Your task to perform on an android device: Go to Google maps Image 0: 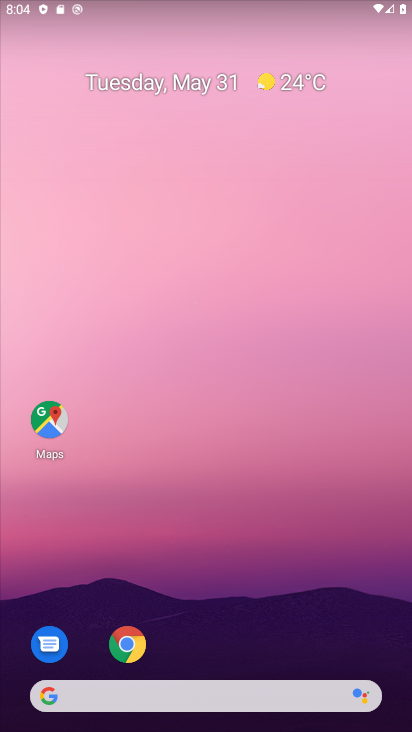
Step 0: drag from (354, 609) to (298, 184)
Your task to perform on an android device: Go to Google maps Image 1: 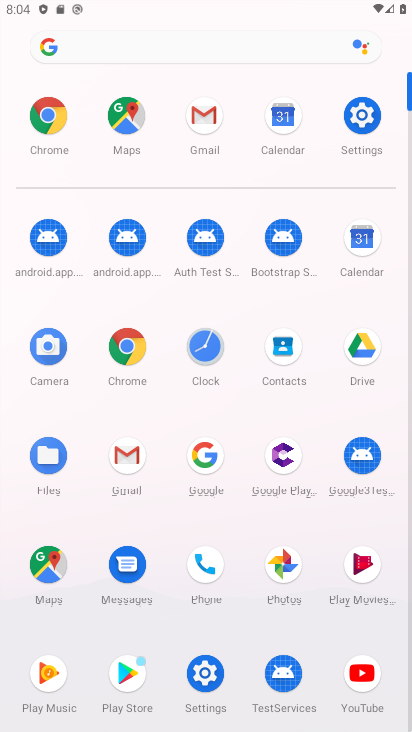
Step 1: click (40, 576)
Your task to perform on an android device: Go to Google maps Image 2: 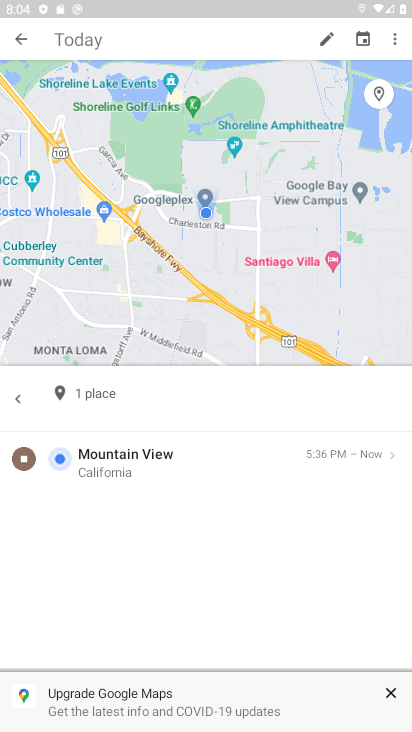
Step 2: task complete